Your task to perform on an android device: add a contact Image 0: 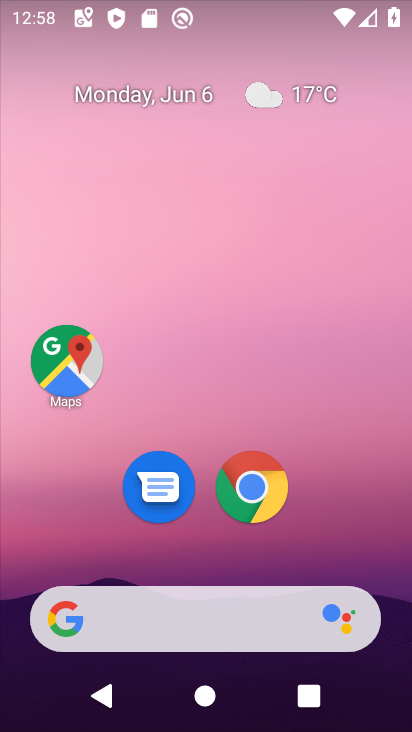
Step 0: drag from (88, 577) to (189, 102)
Your task to perform on an android device: add a contact Image 1: 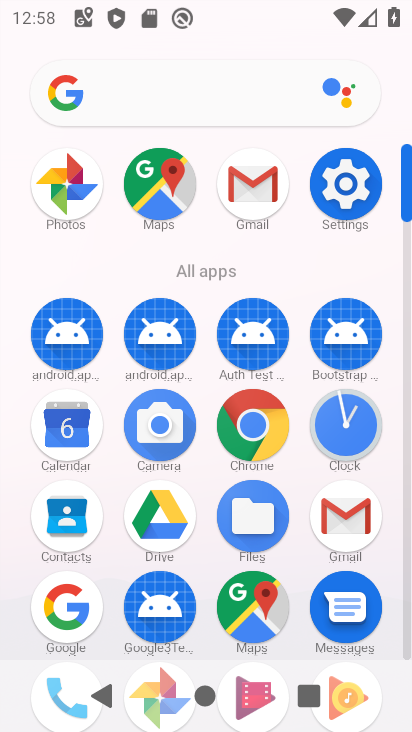
Step 1: click (82, 502)
Your task to perform on an android device: add a contact Image 2: 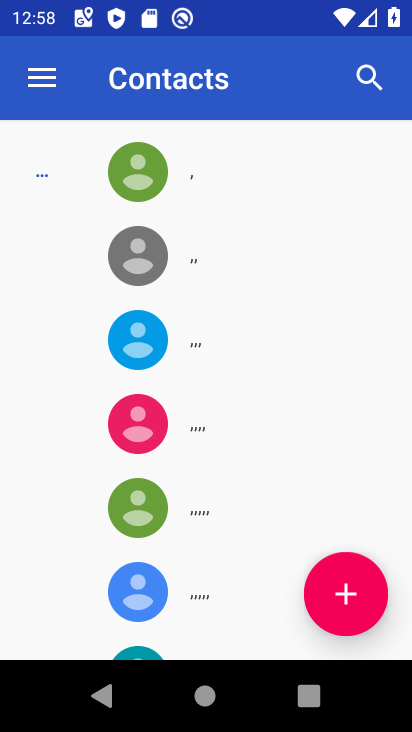
Step 2: click (341, 609)
Your task to perform on an android device: add a contact Image 3: 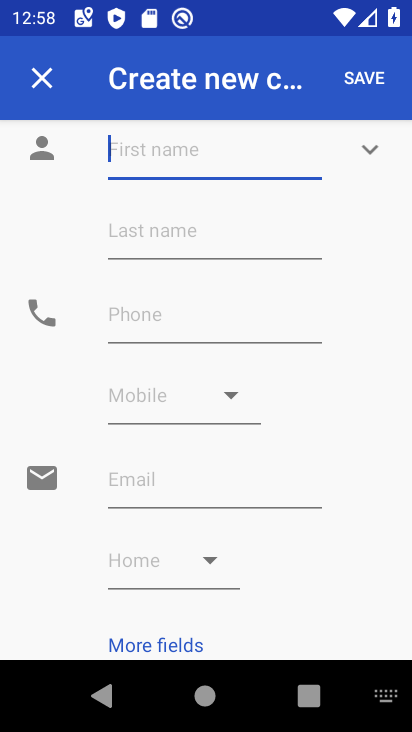
Step 3: type "lolo"
Your task to perform on an android device: add a contact Image 4: 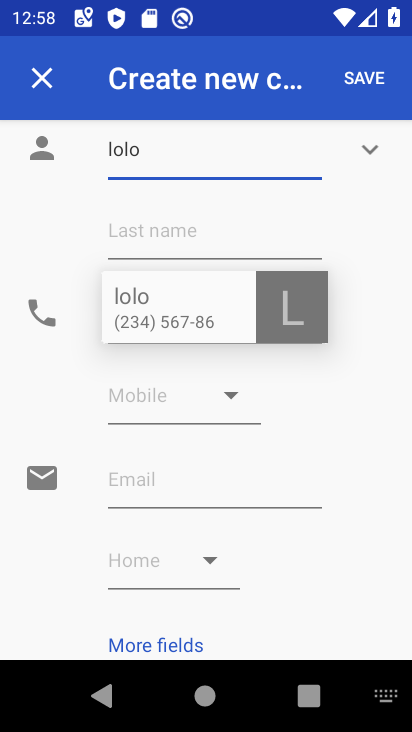
Step 4: type "lo"
Your task to perform on an android device: add a contact Image 5: 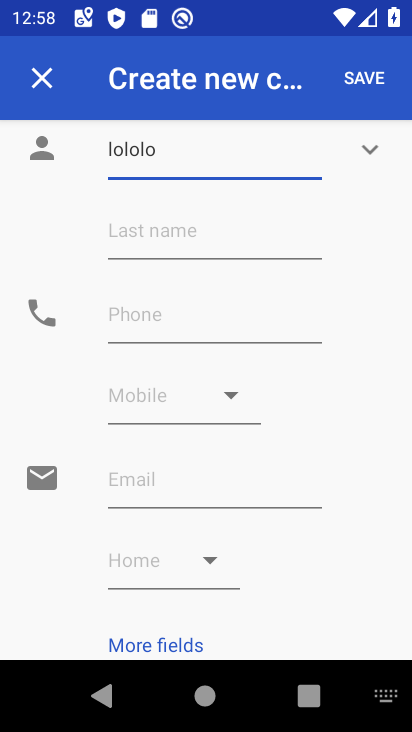
Step 5: click (116, 307)
Your task to perform on an android device: add a contact Image 6: 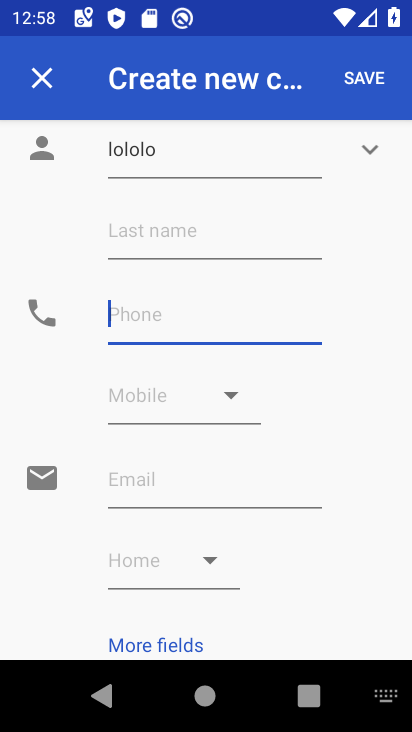
Step 6: type "09876543"
Your task to perform on an android device: add a contact Image 7: 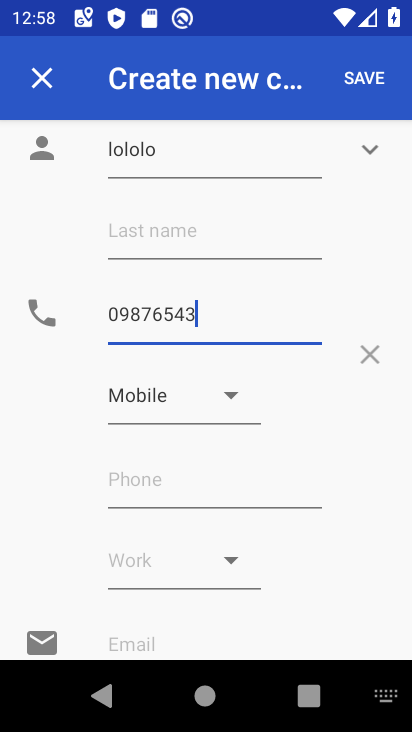
Step 7: type "21"
Your task to perform on an android device: add a contact Image 8: 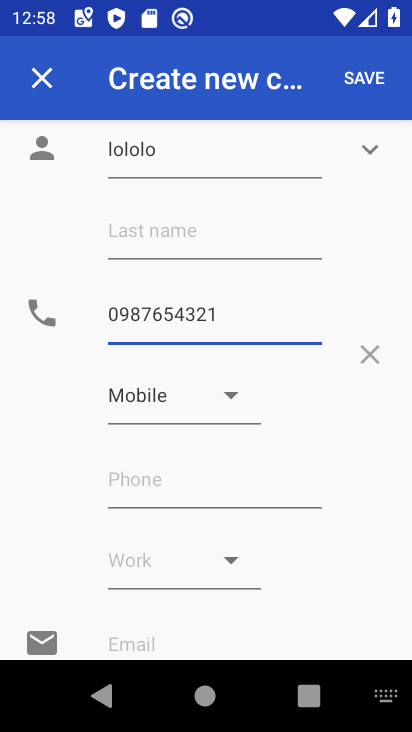
Step 8: click (375, 79)
Your task to perform on an android device: add a contact Image 9: 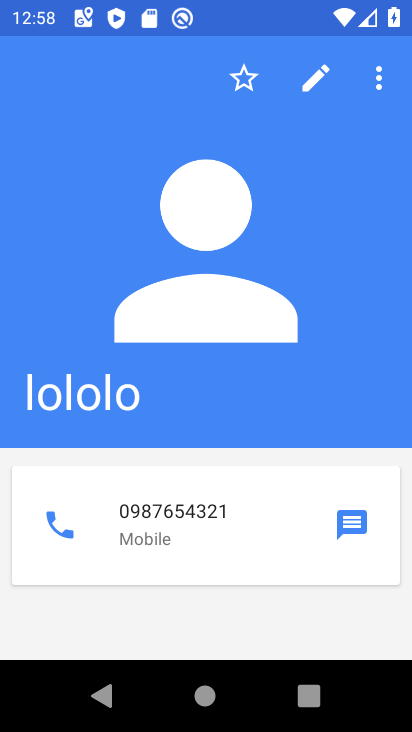
Step 9: task complete